Your task to perform on an android device: empty trash in the gmail app Image 0: 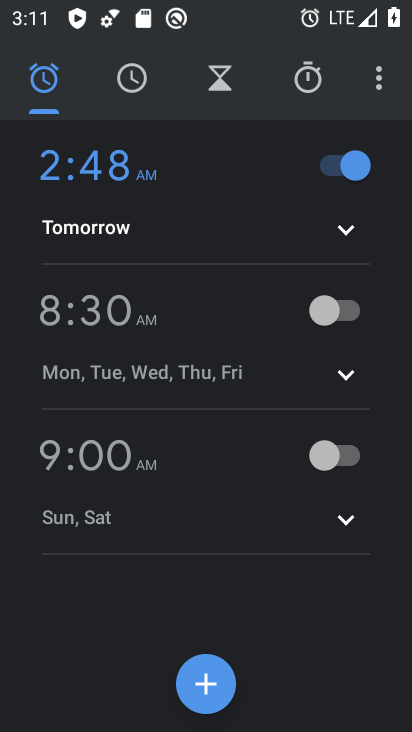
Step 0: press home button
Your task to perform on an android device: empty trash in the gmail app Image 1: 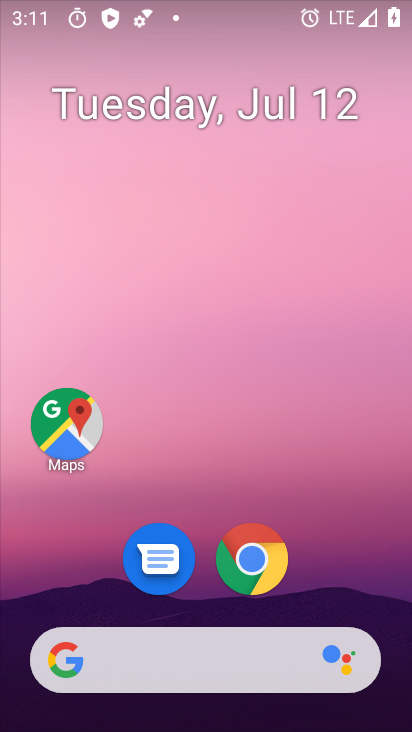
Step 1: drag from (366, 591) to (349, 219)
Your task to perform on an android device: empty trash in the gmail app Image 2: 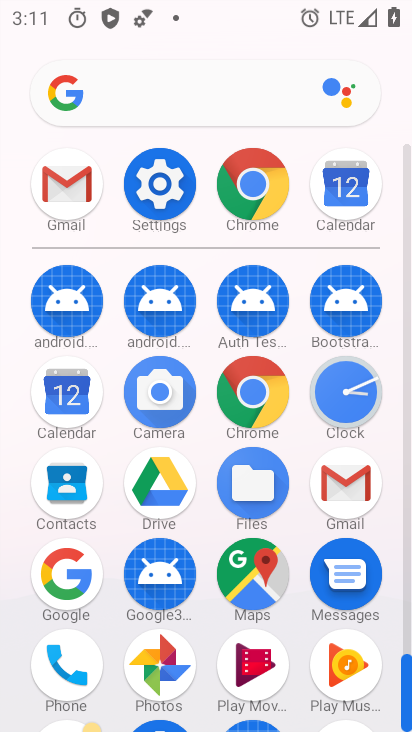
Step 2: click (343, 476)
Your task to perform on an android device: empty trash in the gmail app Image 3: 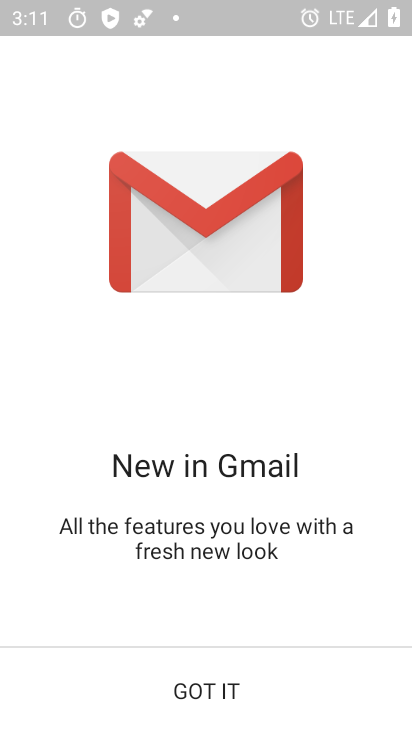
Step 3: click (236, 688)
Your task to perform on an android device: empty trash in the gmail app Image 4: 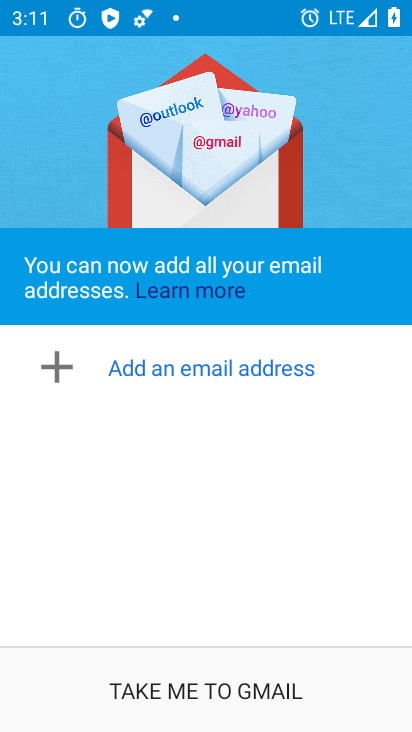
Step 4: click (272, 699)
Your task to perform on an android device: empty trash in the gmail app Image 5: 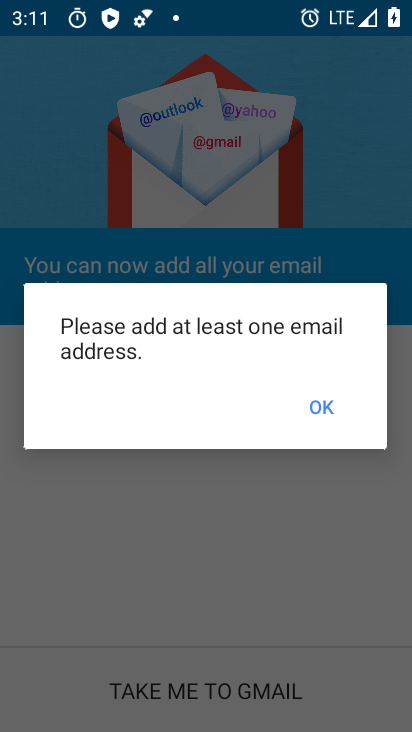
Step 5: task complete